Your task to perform on an android device: toggle sleep mode Image 0: 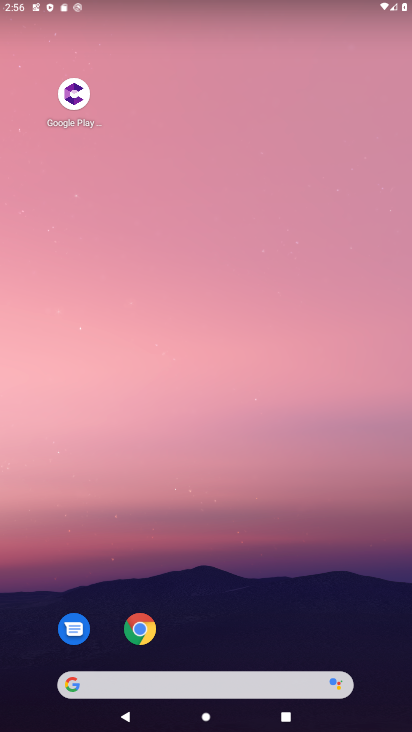
Step 0: drag from (206, 656) to (371, 29)
Your task to perform on an android device: toggle sleep mode Image 1: 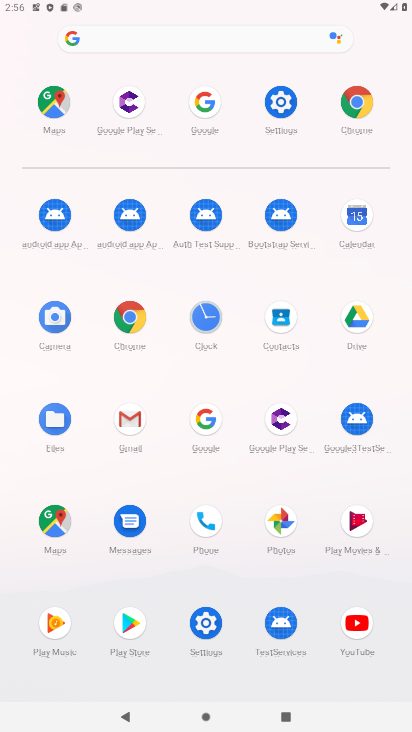
Step 1: click (204, 643)
Your task to perform on an android device: toggle sleep mode Image 2: 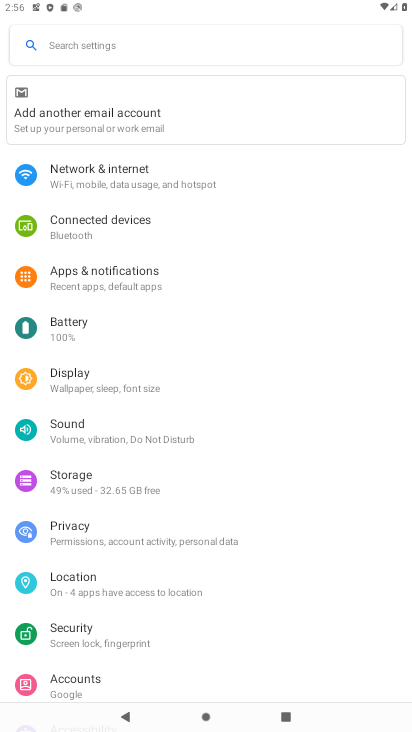
Step 2: click (96, 391)
Your task to perform on an android device: toggle sleep mode Image 3: 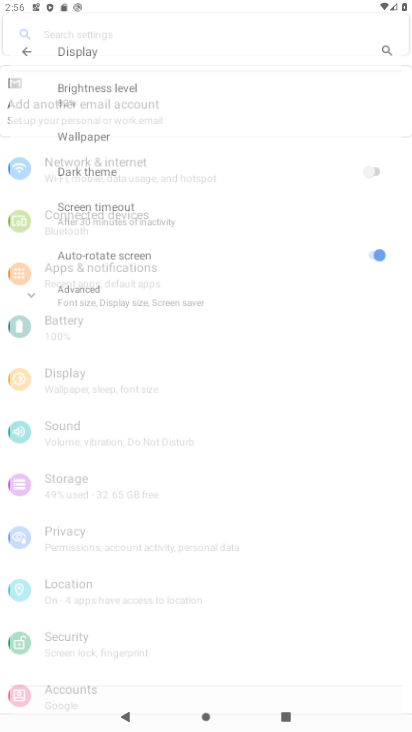
Step 3: task complete